Your task to perform on an android device: toggle translation in the chrome app Image 0: 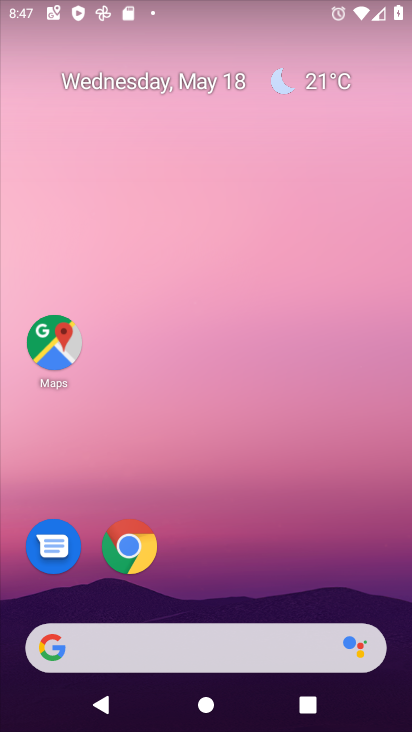
Step 0: drag from (396, 624) to (270, 13)
Your task to perform on an android device: toggle translation in the chrome app Image 1: 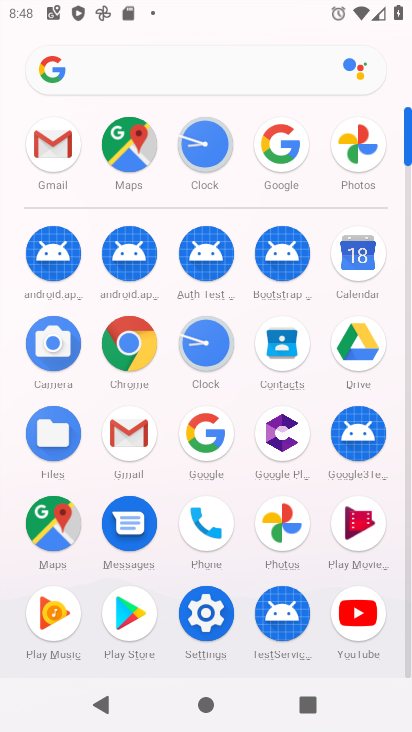
Step 1: click (122, 352)
Your task to perform on an android device: toggle translation in the chrome app Image 2: 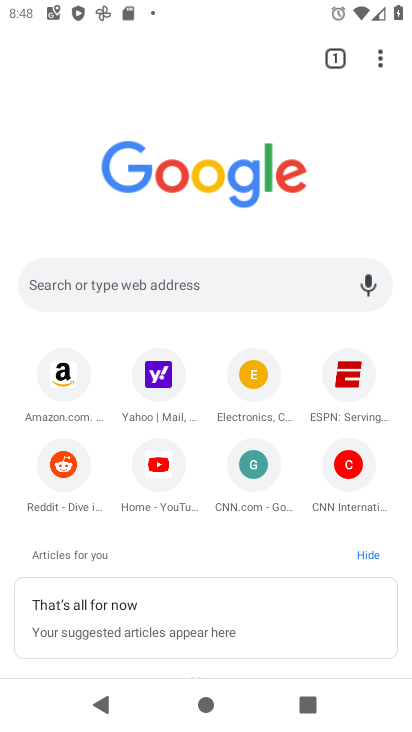
Step 2: click (376, 48)
Your task to perform on an android device: toggle translation in the chrome app Image 3: 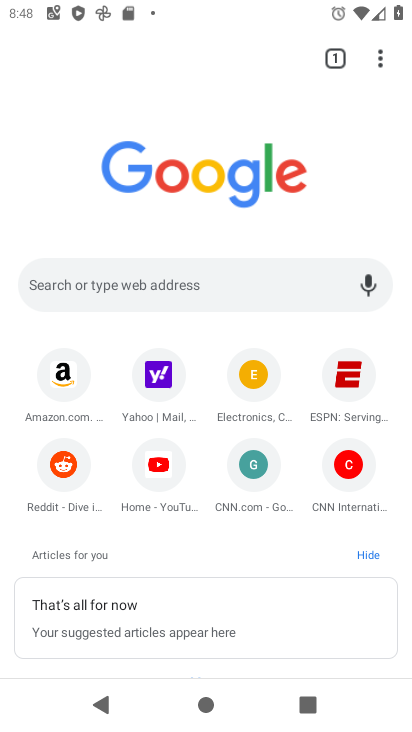
Step 3: click (386, 59)
Your task to perform on an android device: toggle translation in the chrome app Image 4: 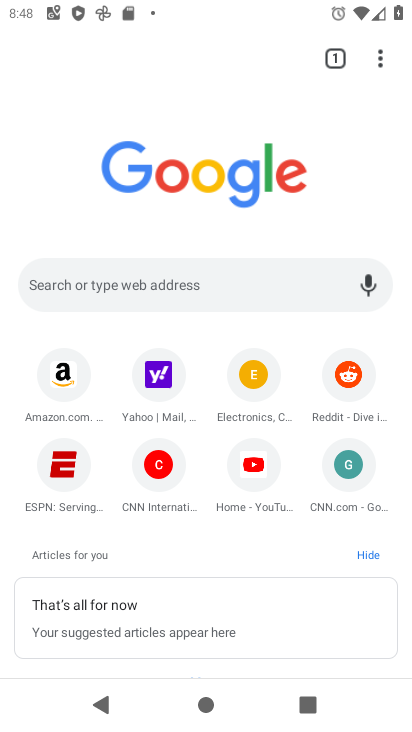
Step 4: click (381, 43)
Your task to perform on an android device: toggle translation in the chrome app Image 5: 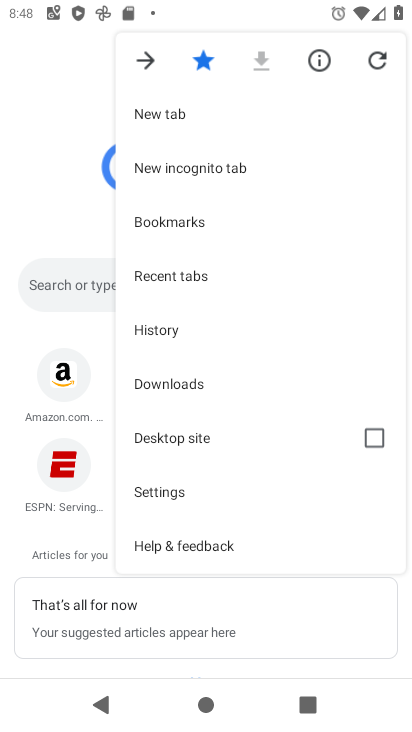
Step 5: click (201, 500)
Your task to perform on an android device: toggle translation in the chrome app Image 6: 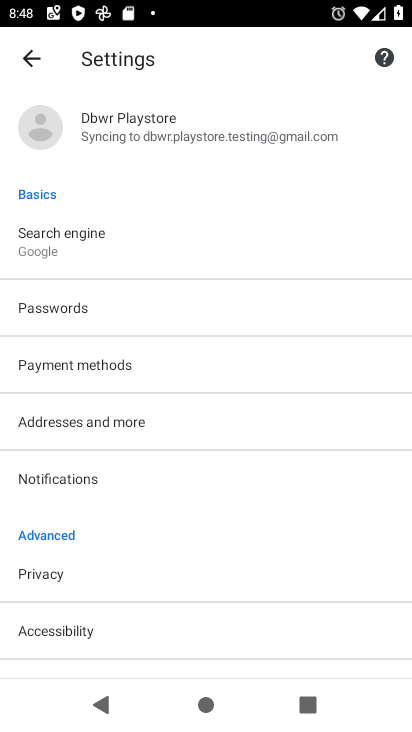
Step 6: drag from (104, 608) to (185, 375)
Your task to perform on an android device: toggle translation in the chrome app Image 7: 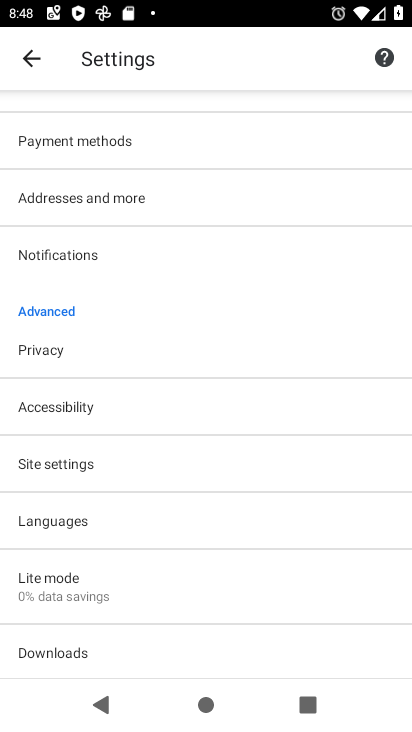
Step 7: click (146, 517)
Your task to perform on an android device: toggle translation in the chrome app Image 8: 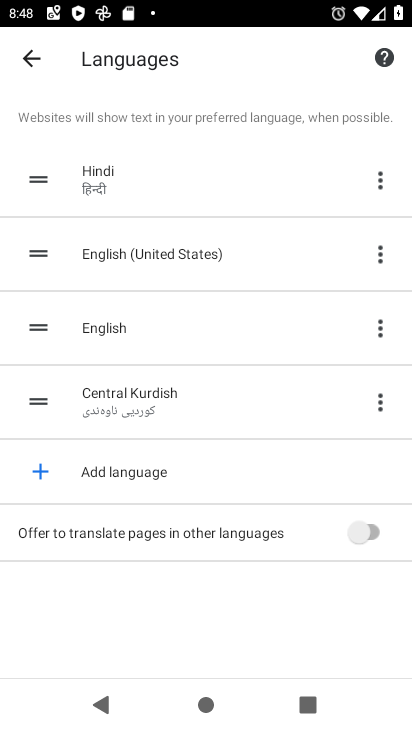
Step 8: click (336, 550)
Your task to perform on an android device: toggle translation in the chrome app Image 9: 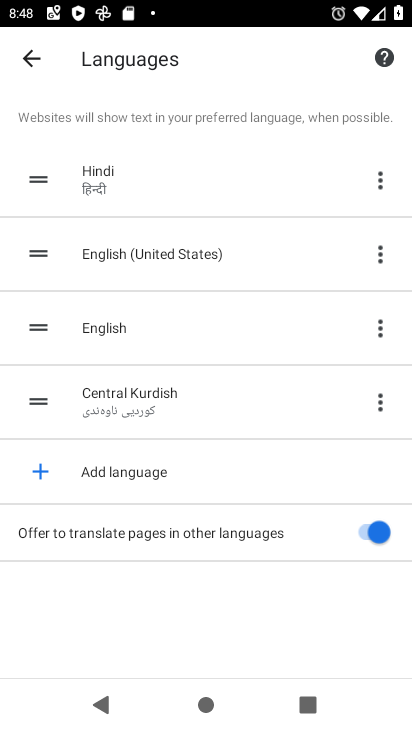
Step 9: task complete